Your task to perform on an android device: add a contact Image 0: 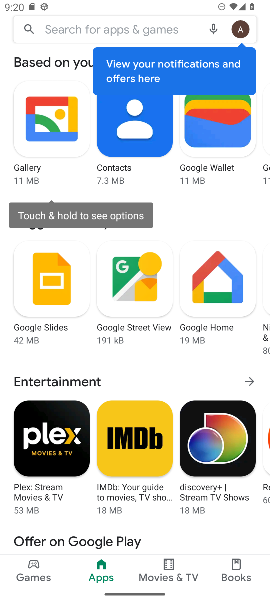
Step 0: press home button
Your task to perform on an android device: add a contact Image 1: 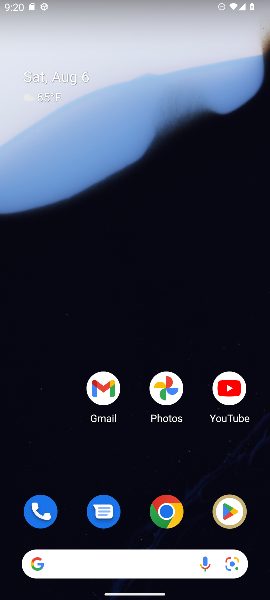
Step 1: drag from (117, 465) to (95, 1)
Your task to perform on an android device: add a contact Image 2: 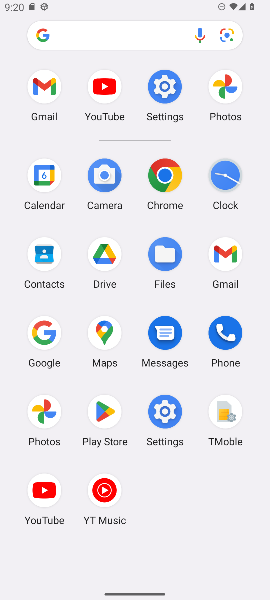
Step 2: click (49, 255)
Your task to perform on an android device: add a contact Image 3: 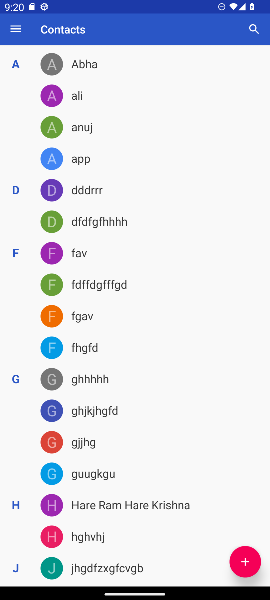
Step 3: click (243, 561)
Your task to perform on an android device: add a contact Image 4: 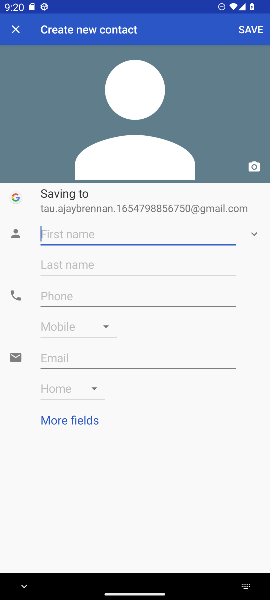
Step 4: type "dn"
Your task to perform on an android device: add a contact Image 5: 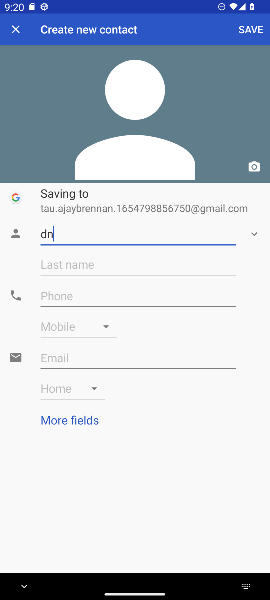
Step 5: click (95, 294)
Your task to perform on an android device: add a contact Image 6: 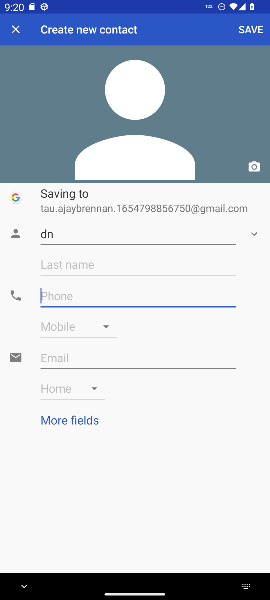
Step 6: type "7375"
Your task to perform on an android device: add a contact Image 7: 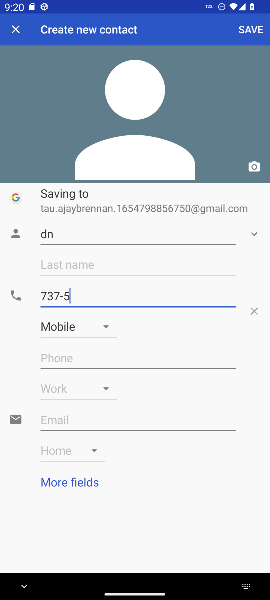
Step 7: click (254, 32)
Your task to perform on an android device: add a contact Image 8: 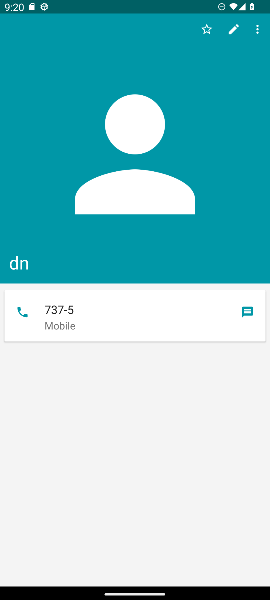
Step 8: task complete